Your task to perform on an android device: empty trash in google photos Image 0: 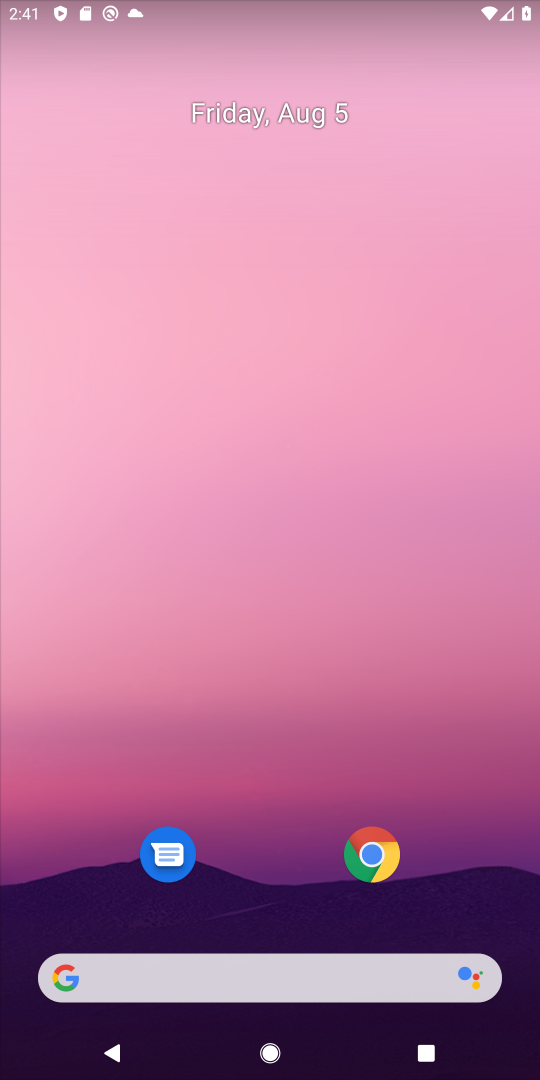
Step 0: drag from (47, 1032) to (188, 467)
Your task to perform on an android device: empty trash in google photos Image 1: 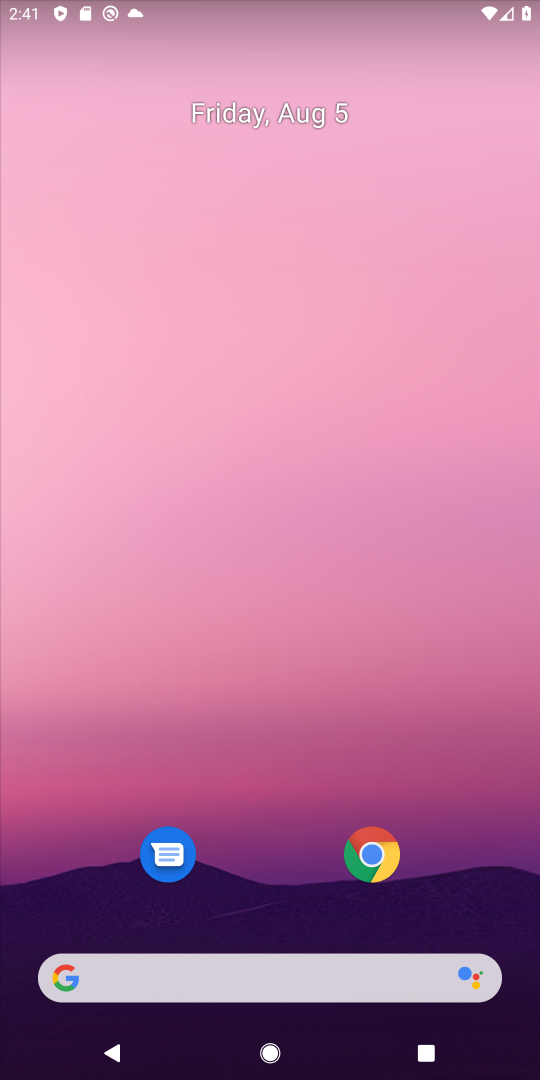
Step 1: click (67, 1035)
Your task to perform on an android device: empty trash in google photos Image 2: 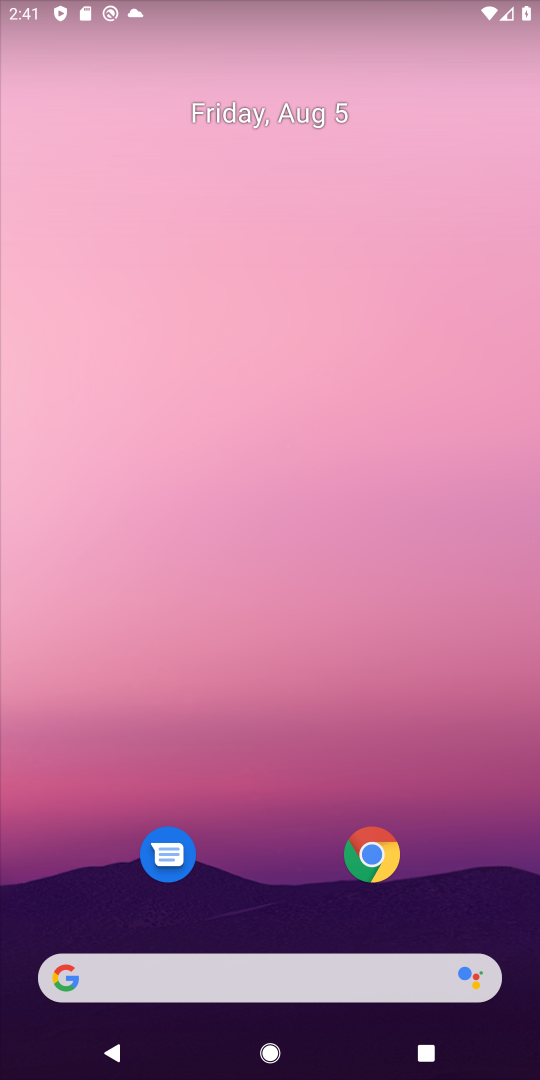
Step 2: drag from (67, 1035) to (271, 515)
Your task to perform on an android device: empty trash in google photos Image 3: 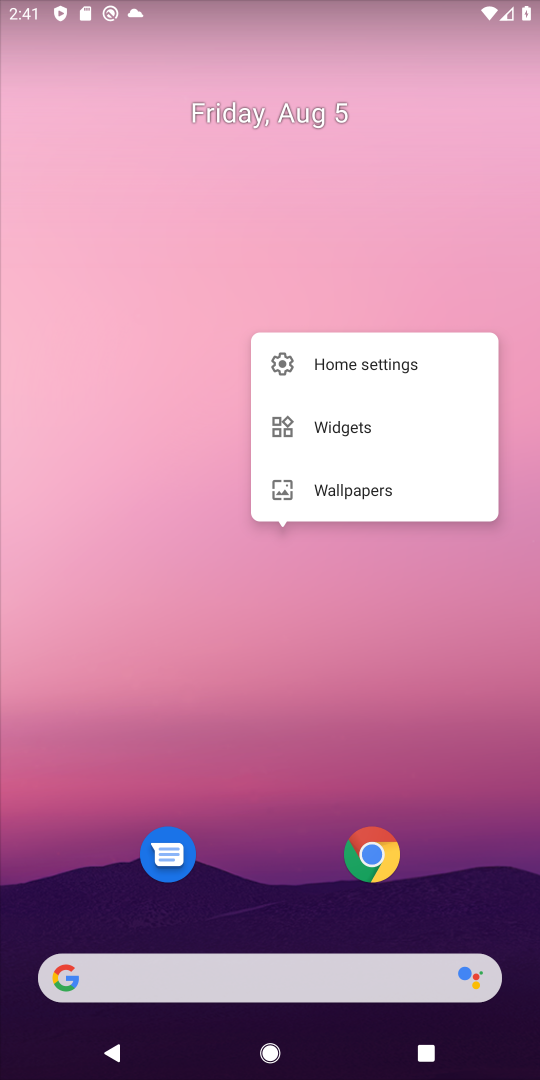
Step 3: click (26, 1032)
Your task to perform on an android device: empty trash in google photos Image 4: 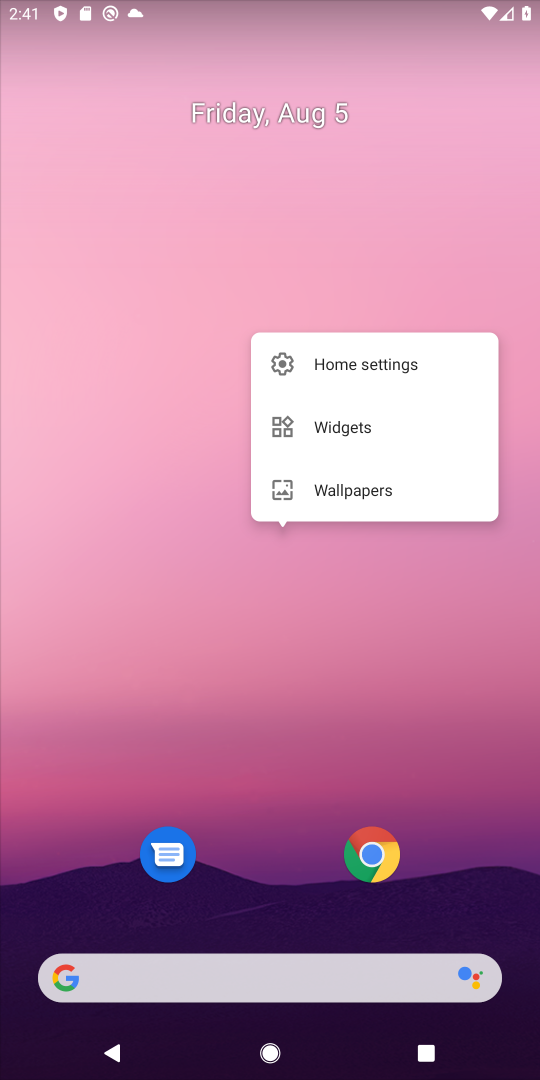
Step 4: task complete